Your task to perform on an android device: Clear the shopping cart on walmart.com. Search for bose soundlink mini on walmart.com, select the first entry, and add it to the cart. Image 0: 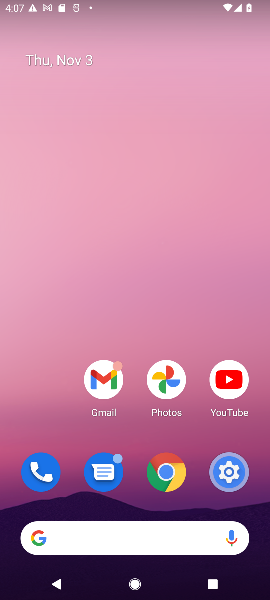
Step 0: task complete